Your task to perform on an android device: open the mobile data screen to see how much data has been used Image 0: 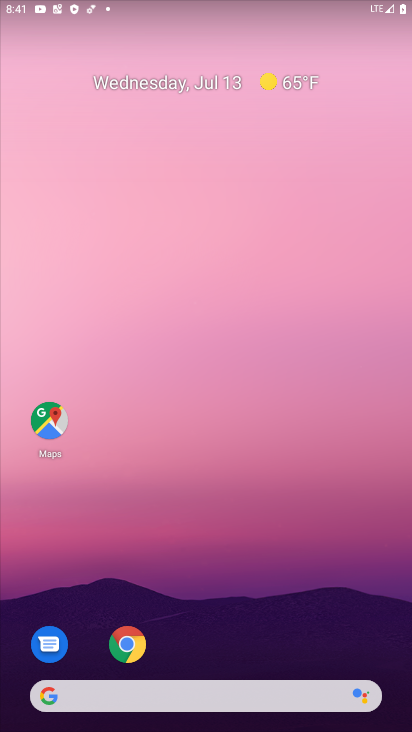
Step 0: drag from (304, 657) to (267, 5)
Your task to perform on an android device: open the mobile data screen to see how much data has been used Image 1: 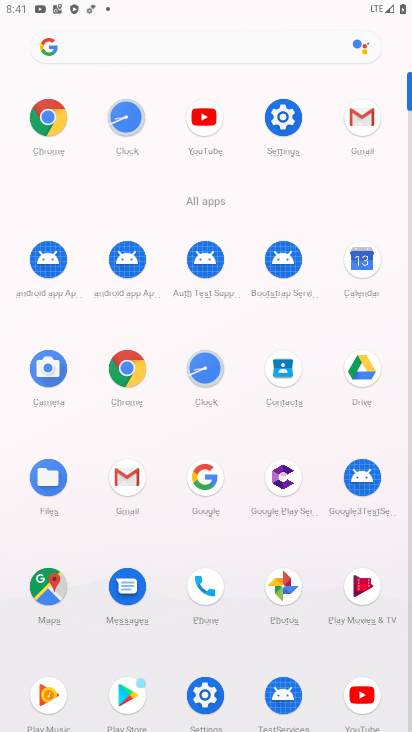
Step 1: click (284, 127)
Your task to perform on an android device: open the mobile data screen to see how much data has been used Image 2: 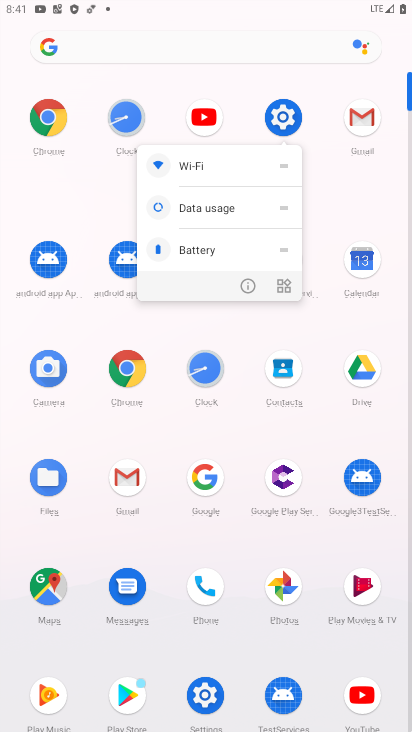
Step 2: click (284, 126)
Your task to perform on an android device: open the mobile data screen to see how much data has been used Image 3: 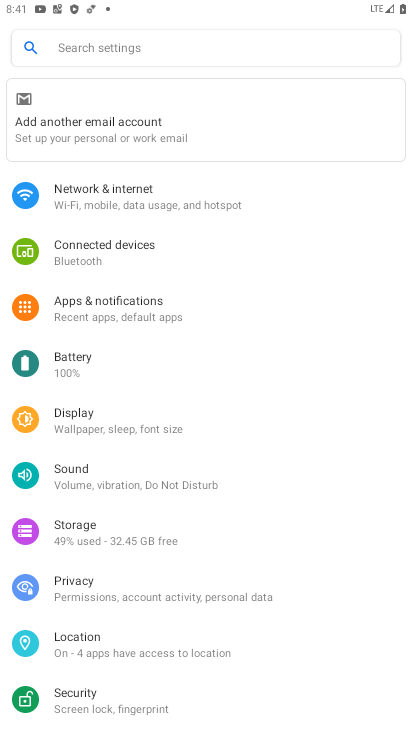
Step 3: click (145, 193)
Your task to perform on an android device: open the mobile data screen to see how much data has been used Image 4: 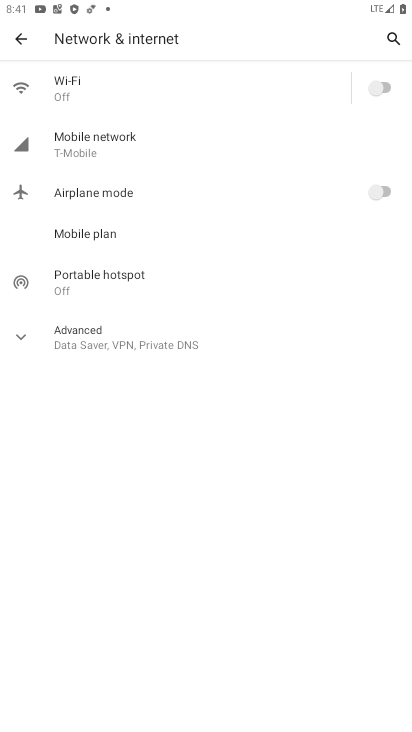
Step 4: click (104, 142)
Your task to perform on an android device: open the mobile data screen to see how much data has been used Image 5: 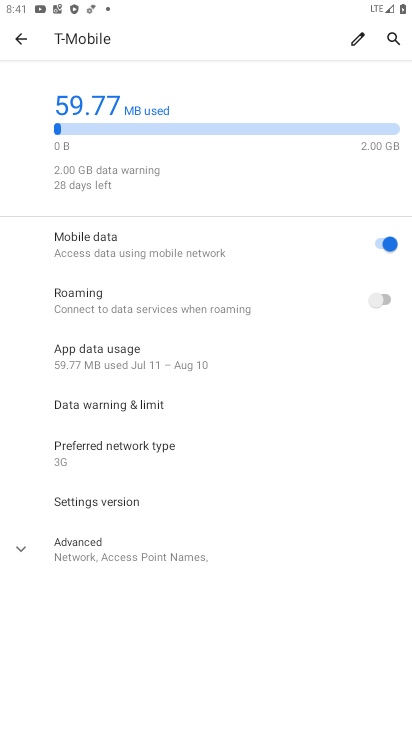
Step 5: task complete